Your task to perform on an android device: Go to Google maps Image 0: 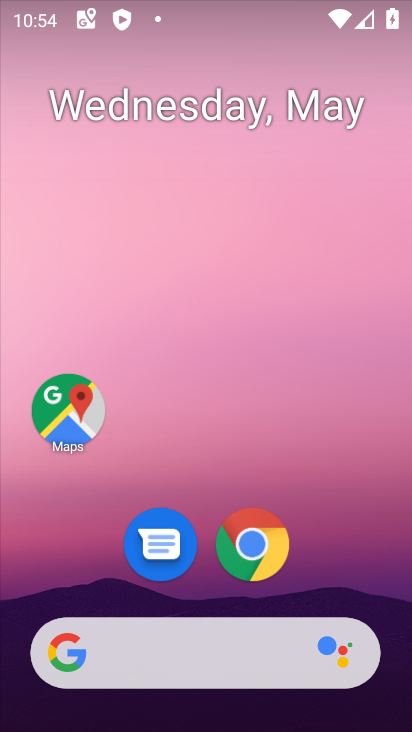
Step 0: drag from (260, 673) to (266, 102)
Your task to perform on an android device: Go to Google maps Image 1: 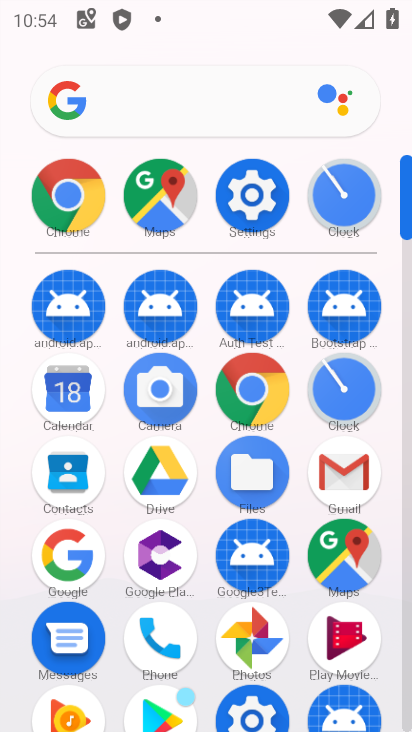
Step 1: click (360, 547)
Your task to perform on an android device: Go to Google maps Image 2: 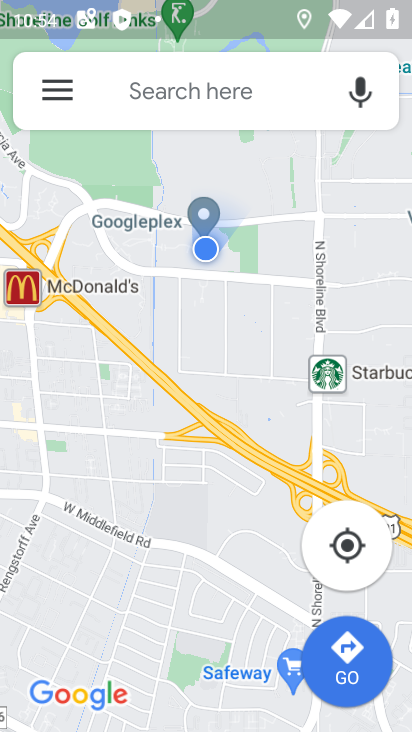
Step 2: task complete